Your task to perform on an android device: change your default location settings in chrome Image 0: 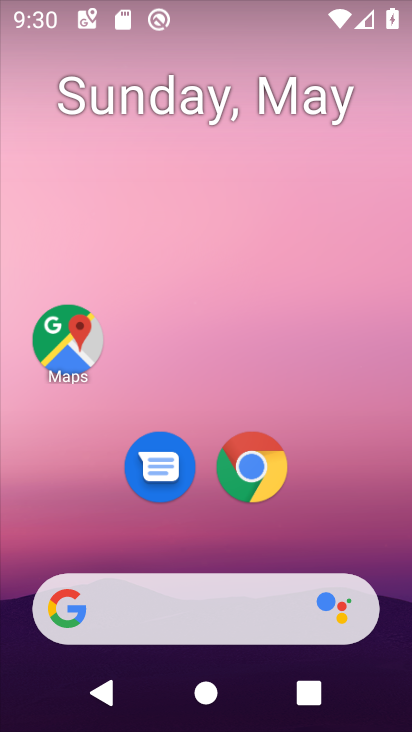
Step 0: drag from (342, 488) to (349, 102)
Your task to perform on an android device: change your default location settings in chrome Image 1: 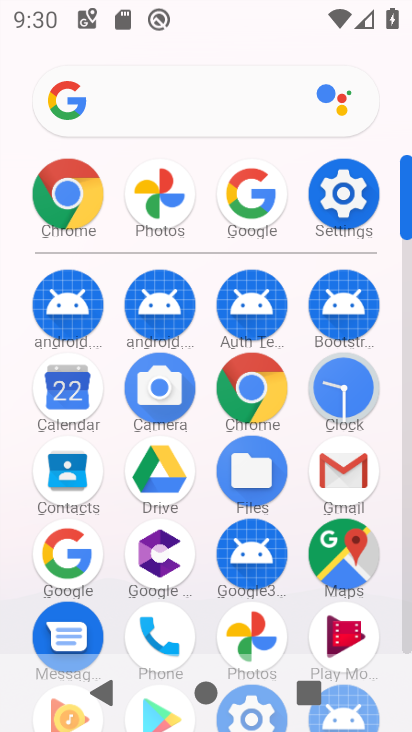
Step 1: click (272, 383)
Your task to perform on an android device: change your default location settings in chrome Image 2: 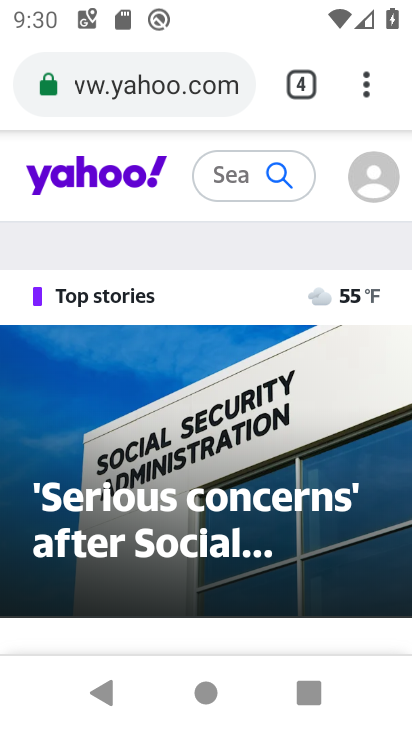
Step 2: click (359, 96)
Your task to perform on an android device: change your default location settings in chrome Image 3: 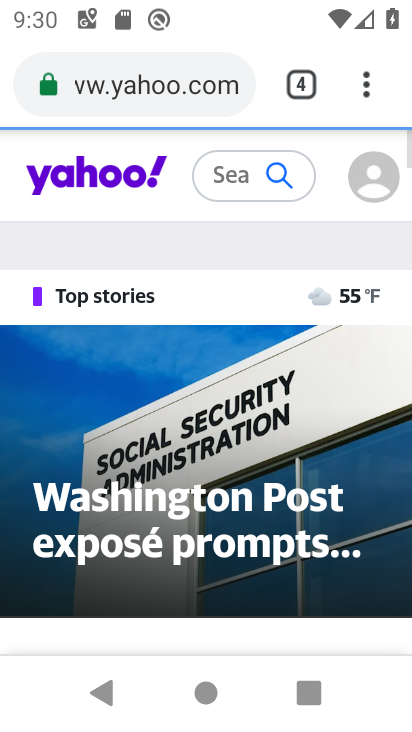
Step 3: drag from (366, 100) to (169, 522)
Your task to perform on an android device: change your default location settings in chrome Image 4: 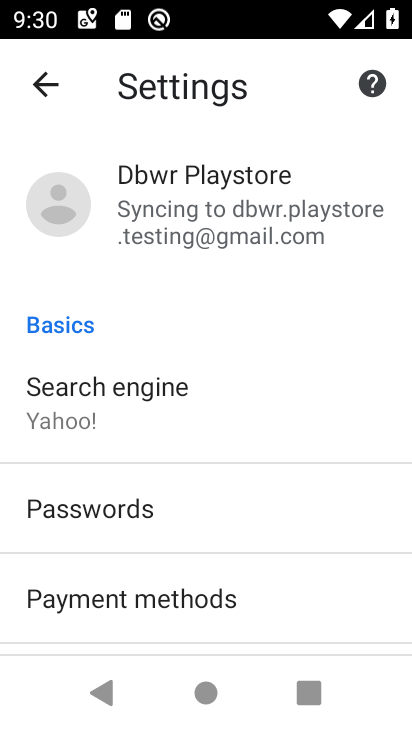
Step 4: click (163, 398)
Your task to perform on an android device: change your default location settings in chrome Image 5: 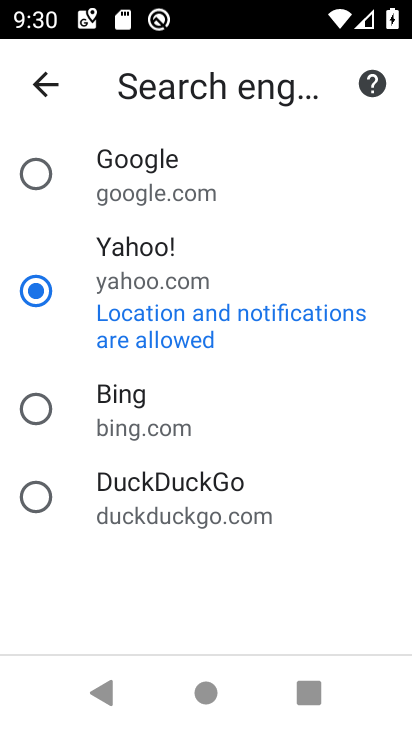
Step 5: click (37, 97)
Your task to perform on an android device: change your default location settings in chrome Image 6: 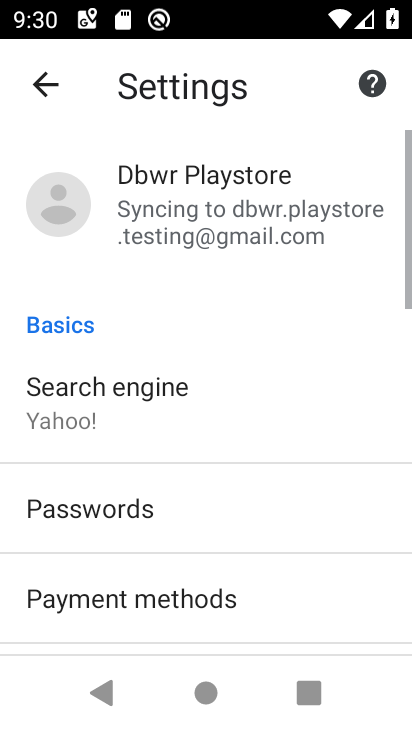
Step 6: drag from (232, 575) to (257, 316)
Your task to perform on an android device: change your default location settings in chrome Image 7: 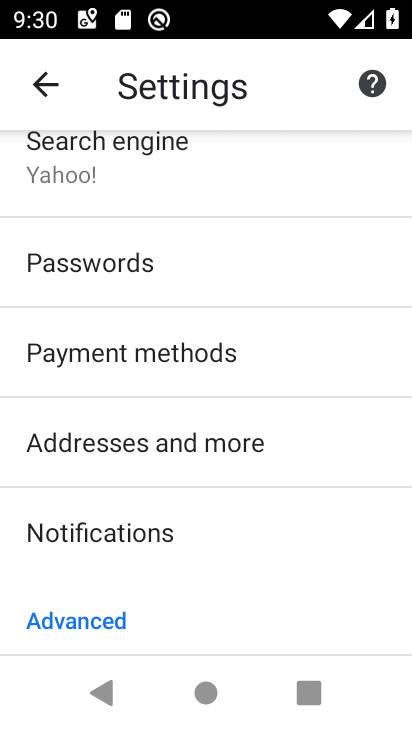
Step 7: drag from (259, 588) to (278, 229)
Your task to perform on an android device: change your default location settings in chrome Image 8: 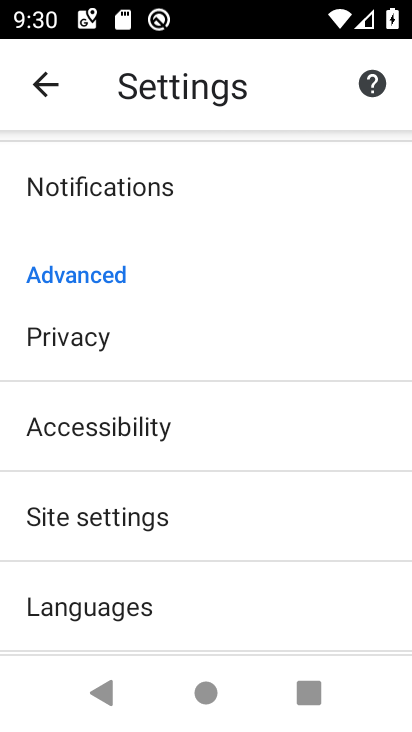
Step 8: drag from (247, 579) to (283, 255)
Your task to perform on an android device: change your default location settings in chrome Image 9: 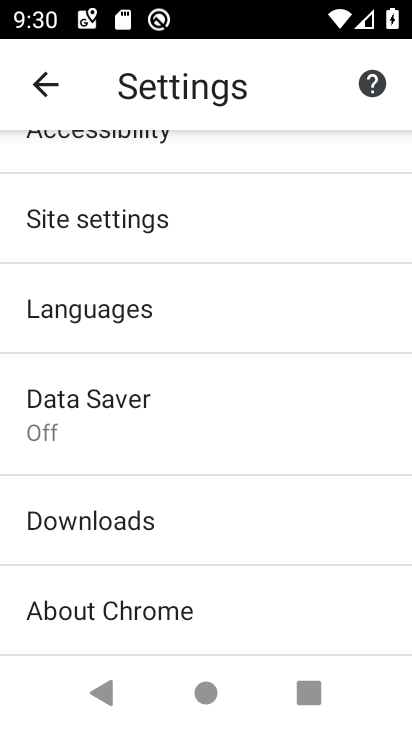
Step 9: click (152, 234)
Your task to perform on an android device: change your default location settings in chrome Image 10: 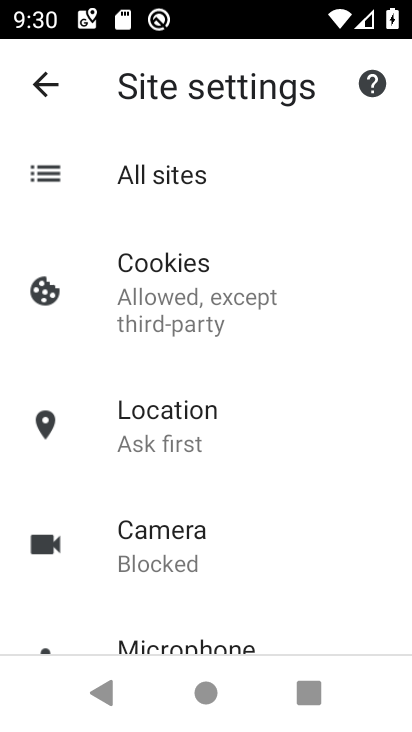
Step 10: click (211, 430)
Your task to perform on an android device: change your default location settings in chrome Image 11: 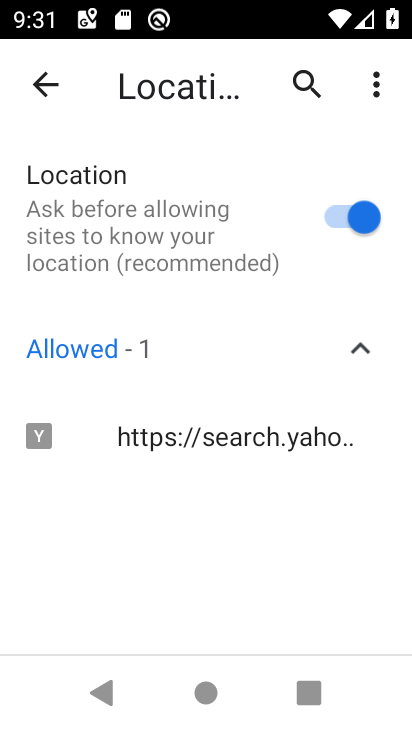
Step 11: task complete